Your task to perform on an android device: Open CNN.com Image 0: 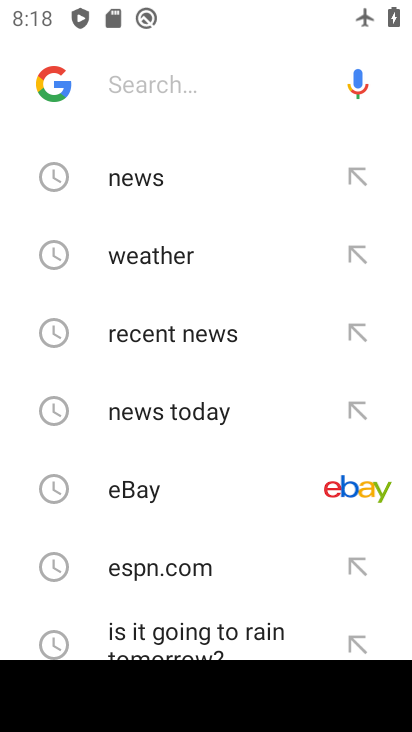
Step 0: press home button
Your task to perform on an android device: Open CNN.com Image 1: 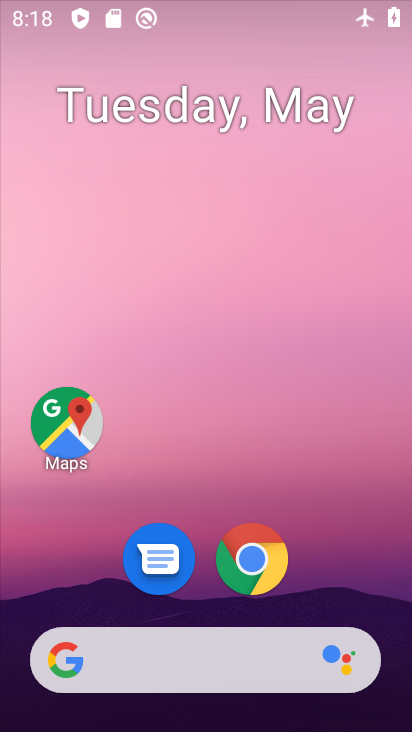
Step 1: click (238, 578)
Your task to perform on an android device: Open CNN.com Image 2: 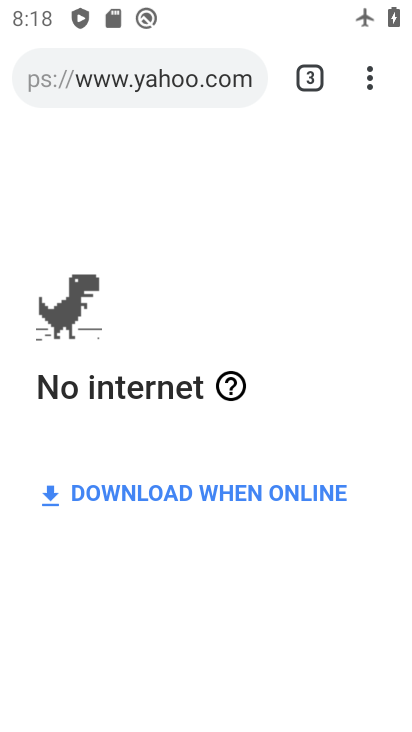
Step 2: click (312, 78)
Your task to perform on an android device: Open CNN.com Image 3: 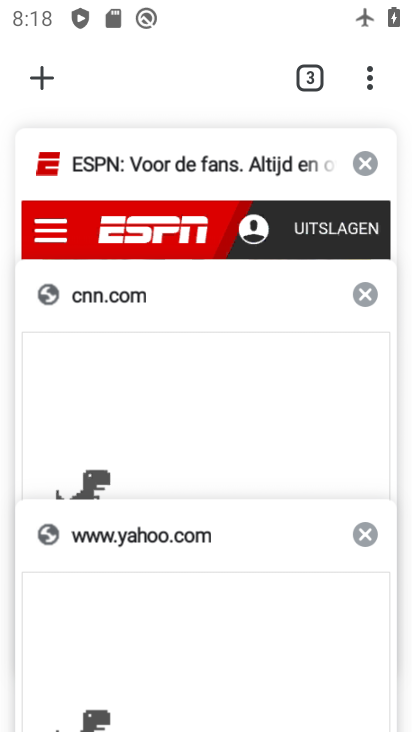
Step 3: click (121, 328)
Your task to perform on an android device: Open CNN.com Image 4: 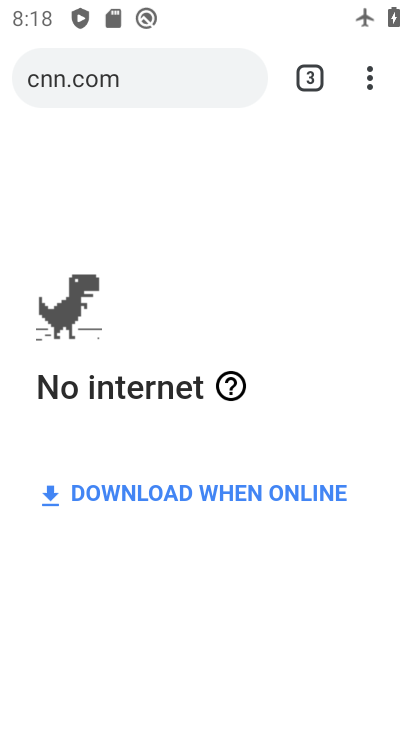
Step 4: task complete